Your task to perform on an android device: open a new tab in the chrome app Image 0: 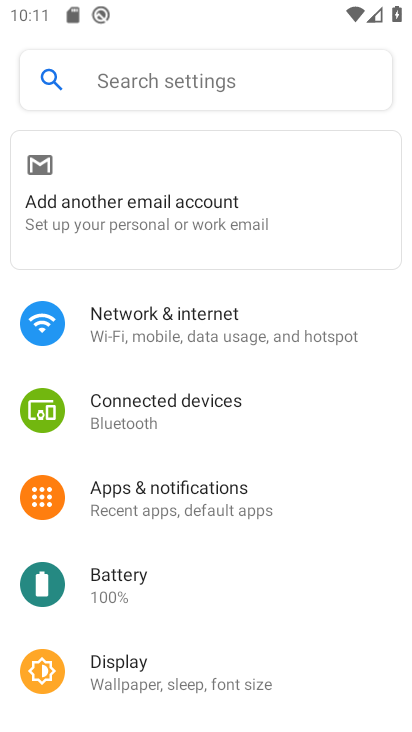
Step 0: press home button
Your task to perform on an android device: open a new tab in the chrome app Image 1: 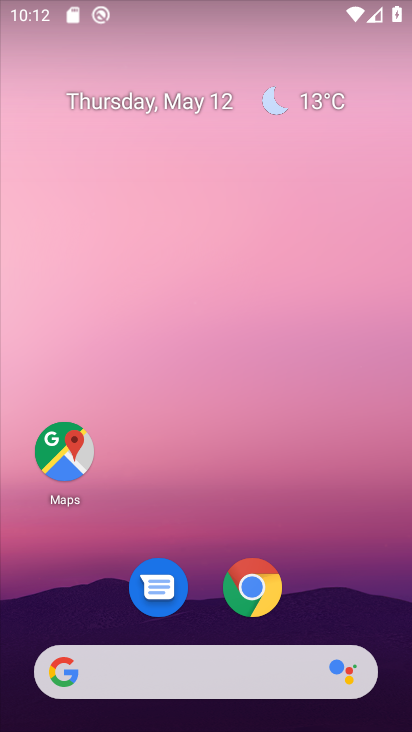
Step 1: click (241, 594)
Your task to perform on an android device: open a new tab in the chrome app Image 2: 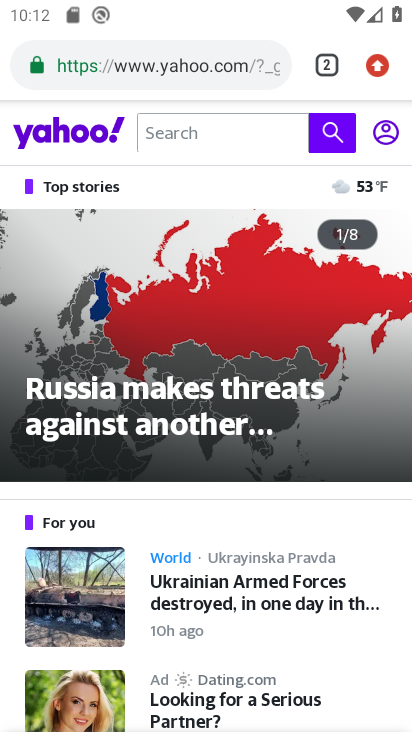
Step 2: drag from (199, 37) to (200, 135)
Your task to perform on an android device: open a new tab in the chrome app Image 3: 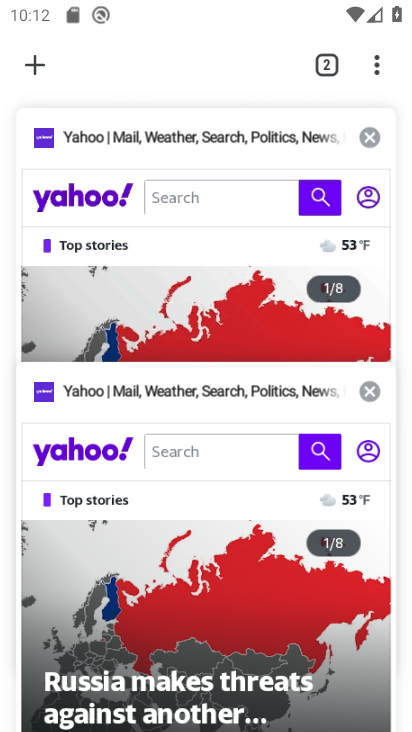
Step 3: click (38, 64)
Your task to perform on an android device: open a new tab in the chrome app Image 4: 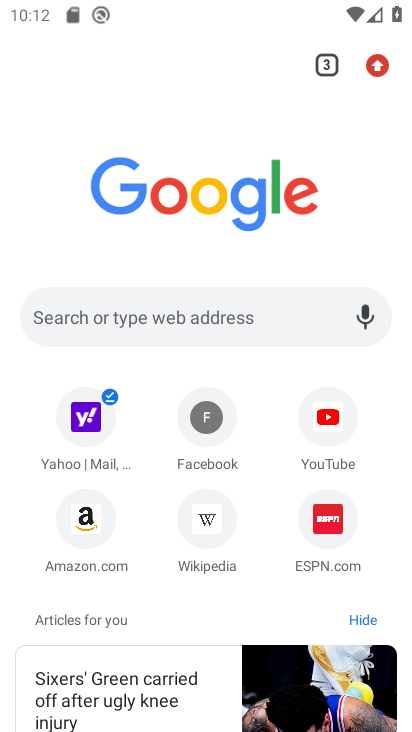
Step 4: task complete